Your task to perform on an android device: open app "Google Play services" (install if not already installed) Image 0: 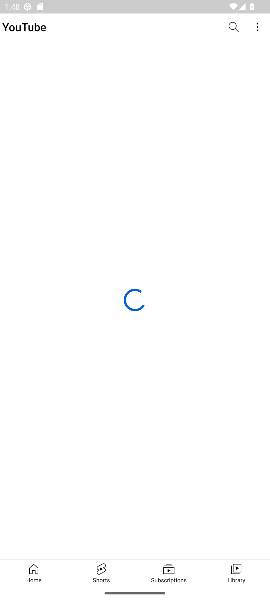
Step 0: press home button
Your task to perform on an android device: open app "Google Play services" (install if not already installed) Image 1: 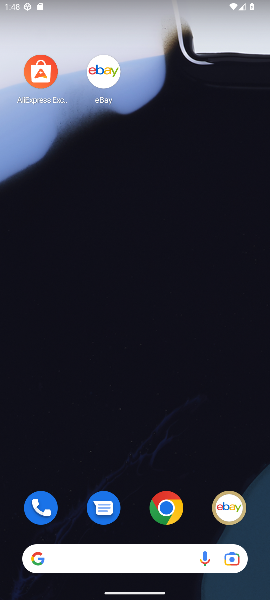
Step 1: drag from (1, 357) to (190, 352)
Your task to perform on an android device: open app "Google Play services" (install if not already installed) Image 2: 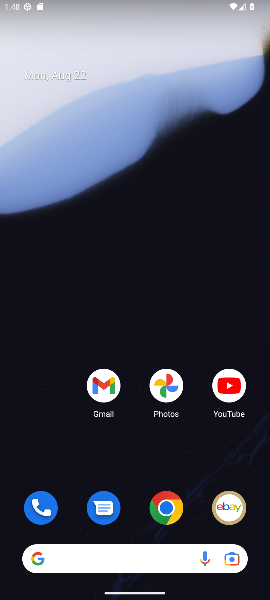
Step 2: drag from (137, 479) to (176, 56)
Your task to perform on an android device: open app "Google Play services" (install if not already installed) Image 3: 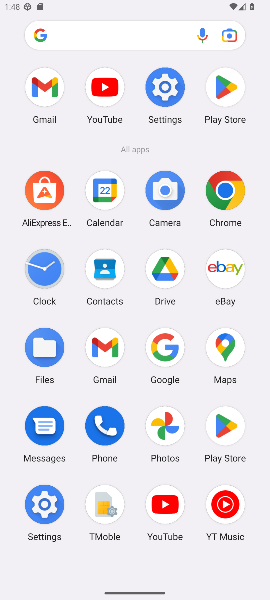
Step 3: click (224, 88)
Your task to perform on an android device: open app "Google Play services" (install if not already installed) Image 4: 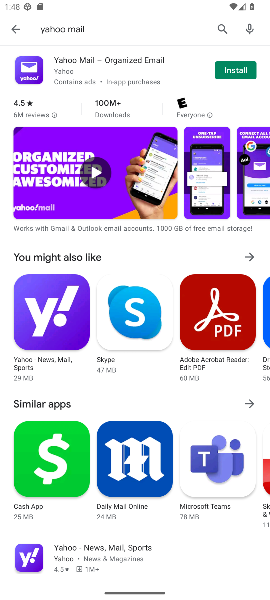
Step 4: click (221, 22)
Your task to perform on an android device: open app "Google Play services" (install if not already installed) Image 5: 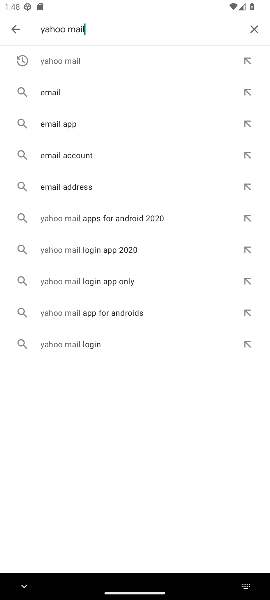
Step 5: click (256, 30)
Your task to perform on an android device: open app "Google Play services" (install if not already installed) Image 6: 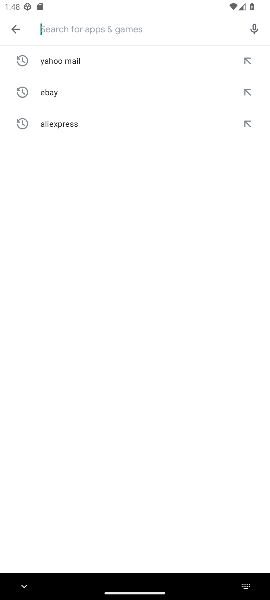
Step 6: type "google play services"
Your task to perform on an android device: open app "Google Play services" (install if not already installed) Image 7: 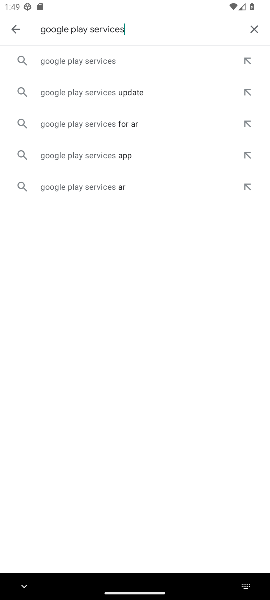
Step 7: click (89, 62)
Your task to perform on an android device: open app "Google Play services" (install if not already installed) Image 8: 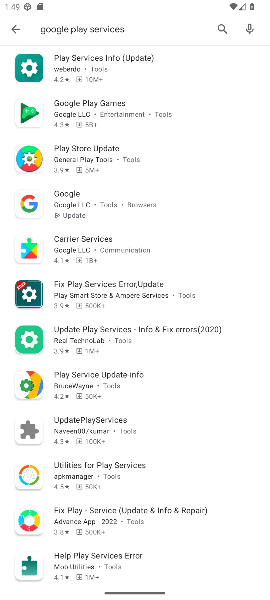
Step 8: click (80, 106)
Your task to perform on an android device: open app "Google Play services" (install if not already installed) Image 9: 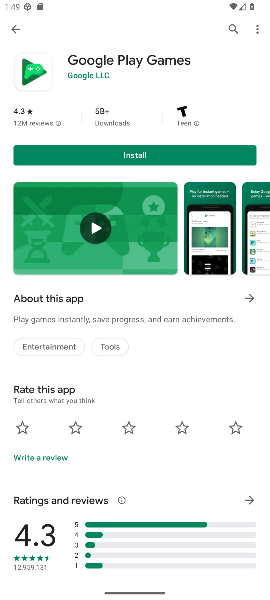
Step 9: click (135, 153)
Your task to perform on an android device: open app "Google Play services" (install if not already installed) Image 10: 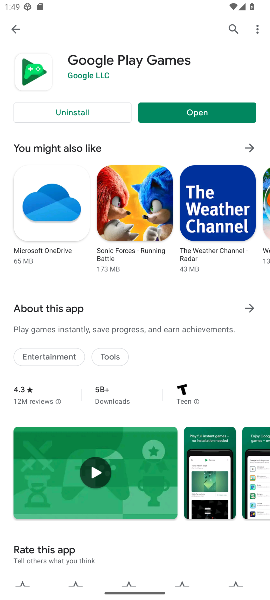
Step 10: click (194, 115)
Your task to perform on an android device: open app "Google Play services" (install if not already installed) Image 11: 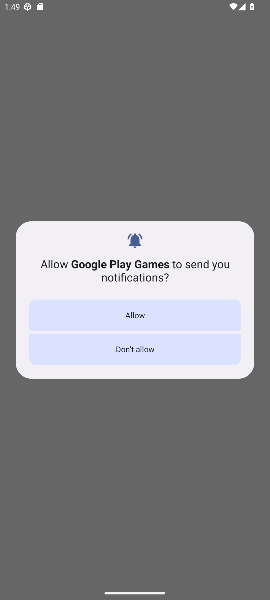
Step 11: click (123, 311)
Your task to perform on an android device: open app "Google Play services" (install if not already installed) Image 12: 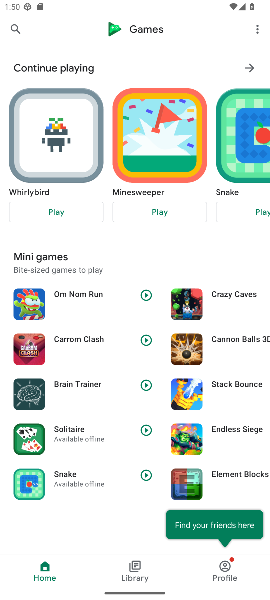
Step 12: task complete